Your task to perform on an android device: open sync settings in chrome Image 0: 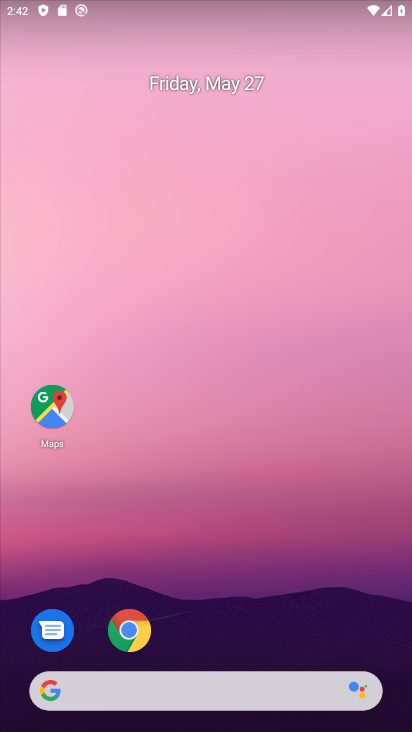
Step 0: click (137, 635)
Your task to perform on an android device: open sync settings in chrome Image 1: 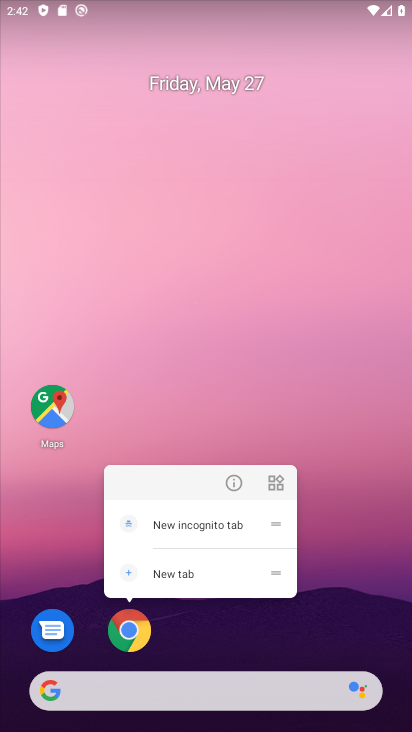
Step 1: click (128, 638)
Your task to perform on an android device: open sync settings in chrome Image 2: 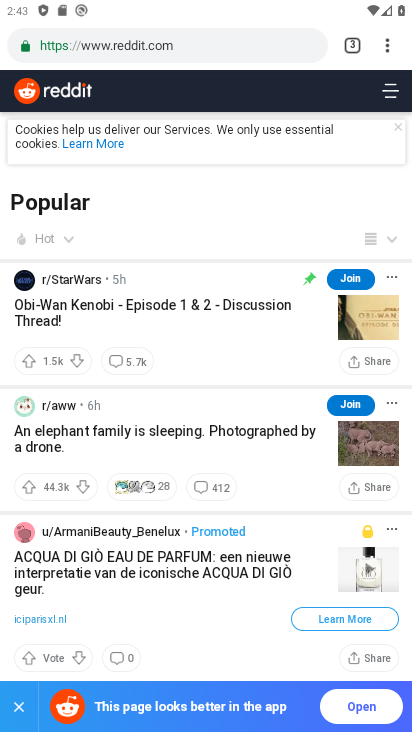
Step 2: click (387, 50)
Your task to perform on an android device: open sync settings in chrome Image 3: 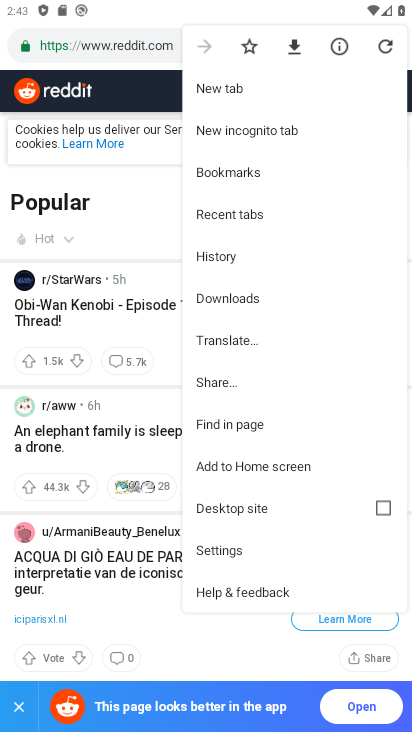
Step 3: click (225, 544)
Your task to perform on an android device: open sync settings in chrome Image 4: 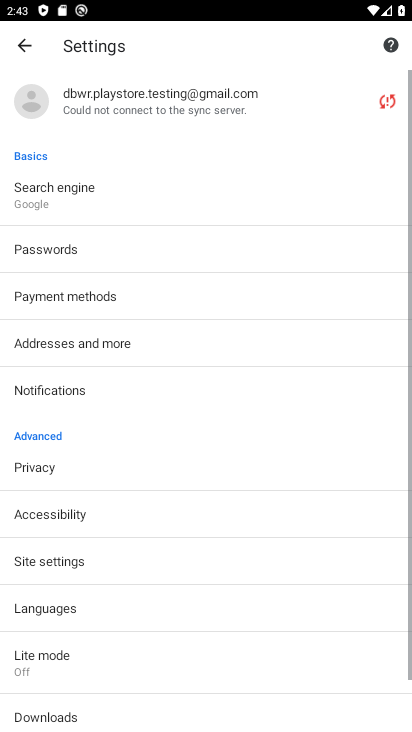
Step 4: click (58, 95)
Your task to perform on an android device: open sync settings in chrome Image 5: 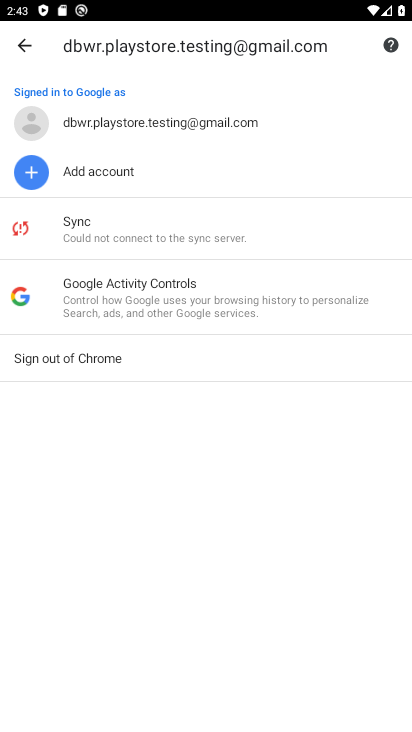
Step 5: click (57, 231)
Your task to perform on an android device: open sync settings in chrome Image 6: 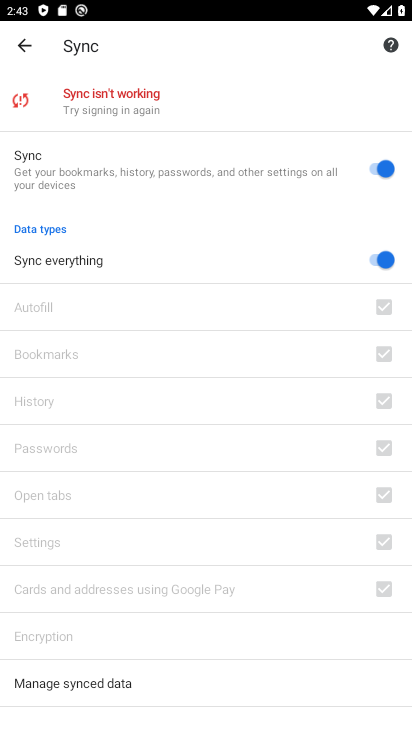
Step 6: task complete